Your task to perform on an android device: toggle sleep mode Image 0: 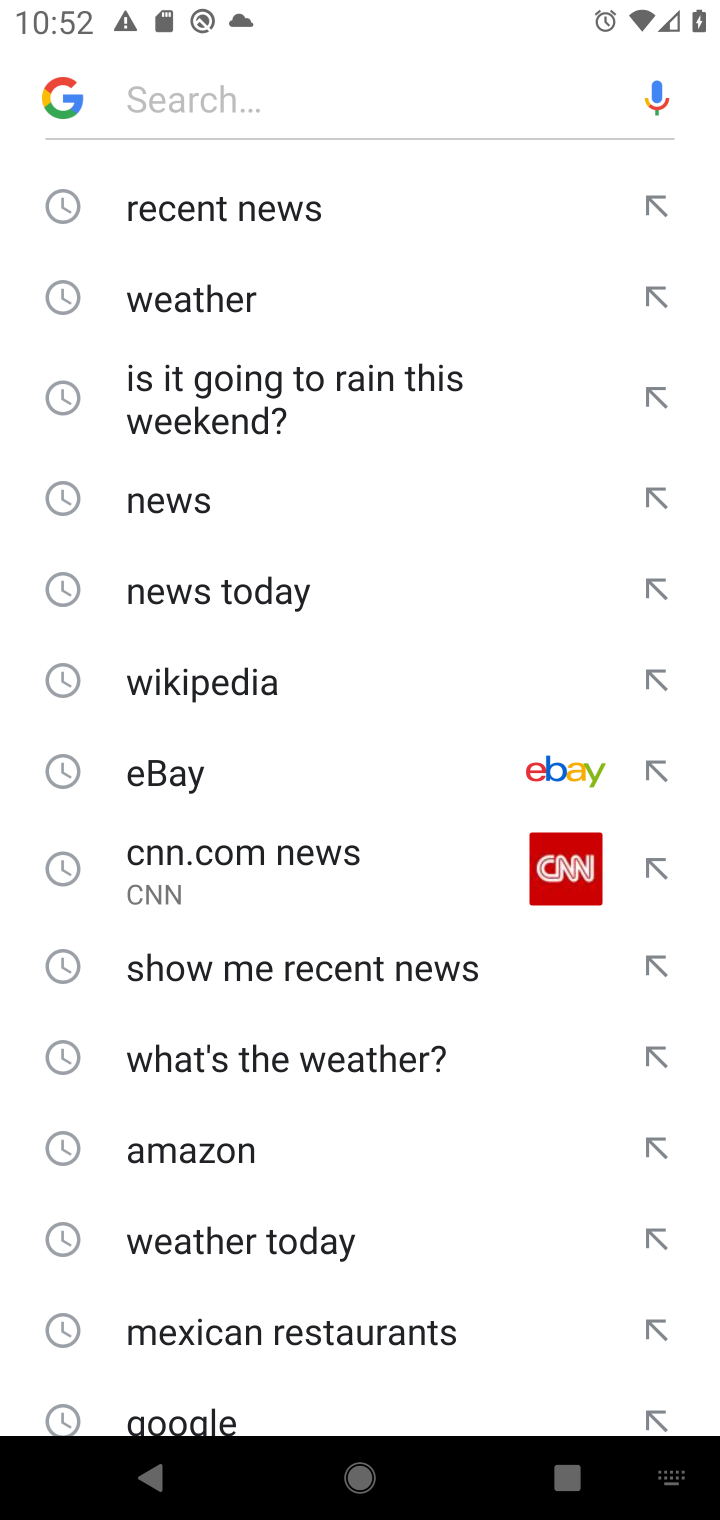
Step 0: press home button
Your task to perform on an android device: toggle sleep mode Image 1: 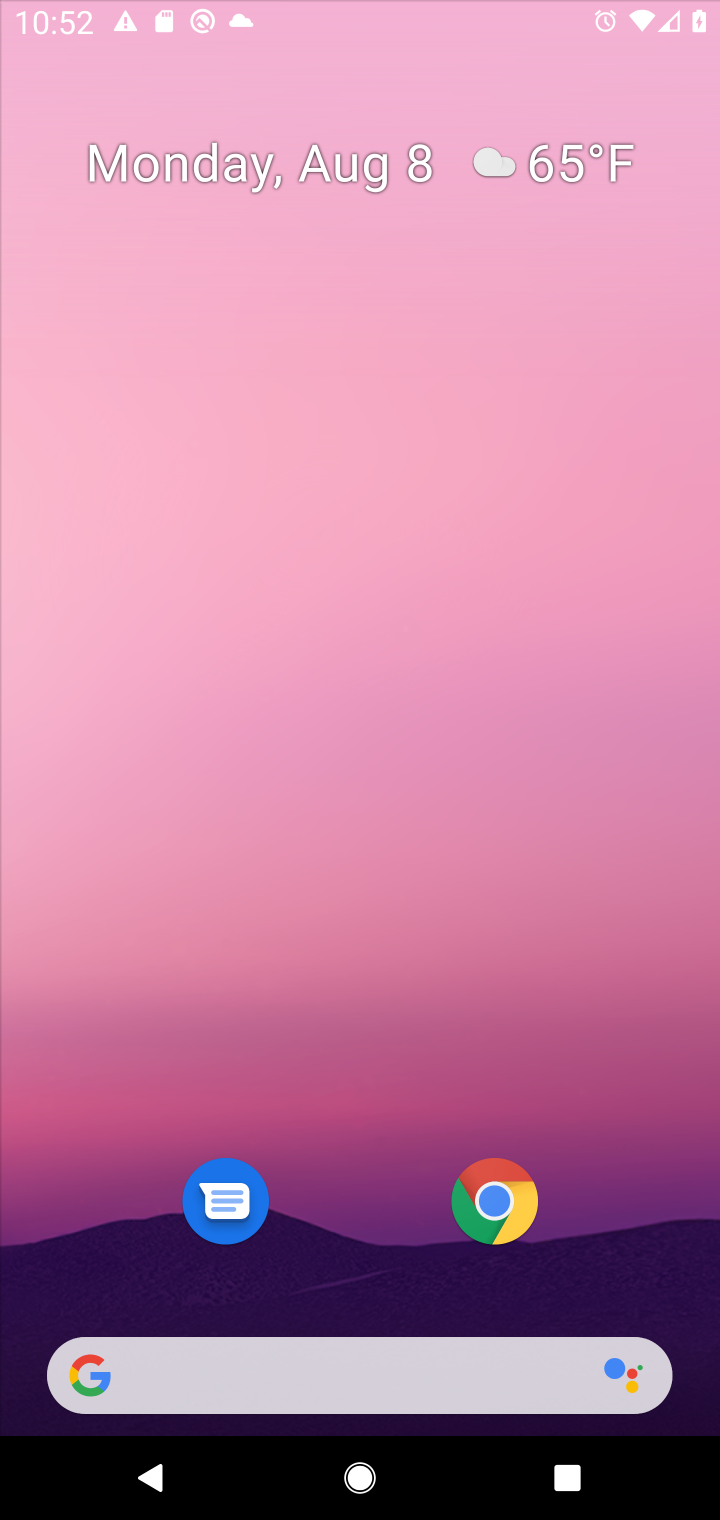
Step 1: click (707, 772)
Your task to perform on an android device: toggle sleep mode Image 2: 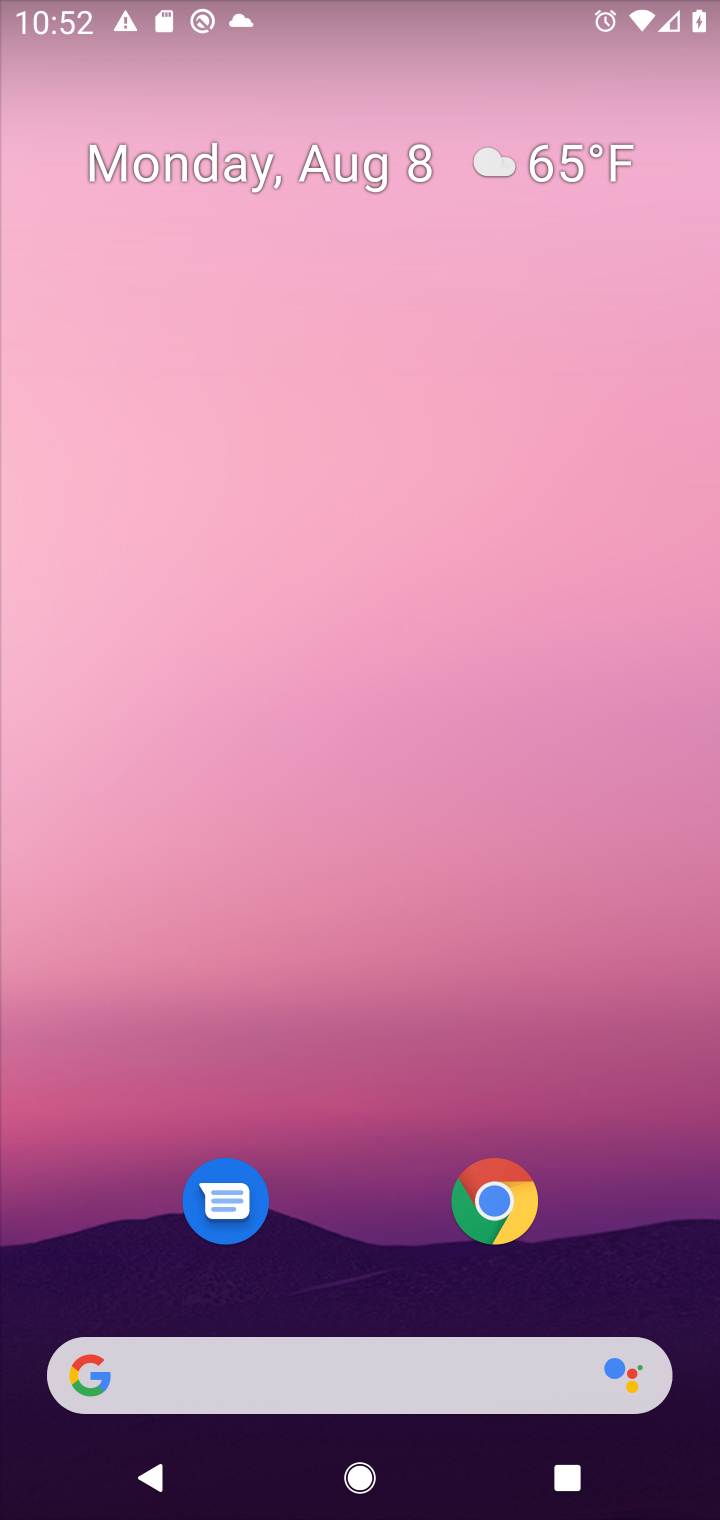
Step 2: drag from (374, 1260) to (456, 187)
Your task to perform on an android device: toggle sleep mode Image 3: 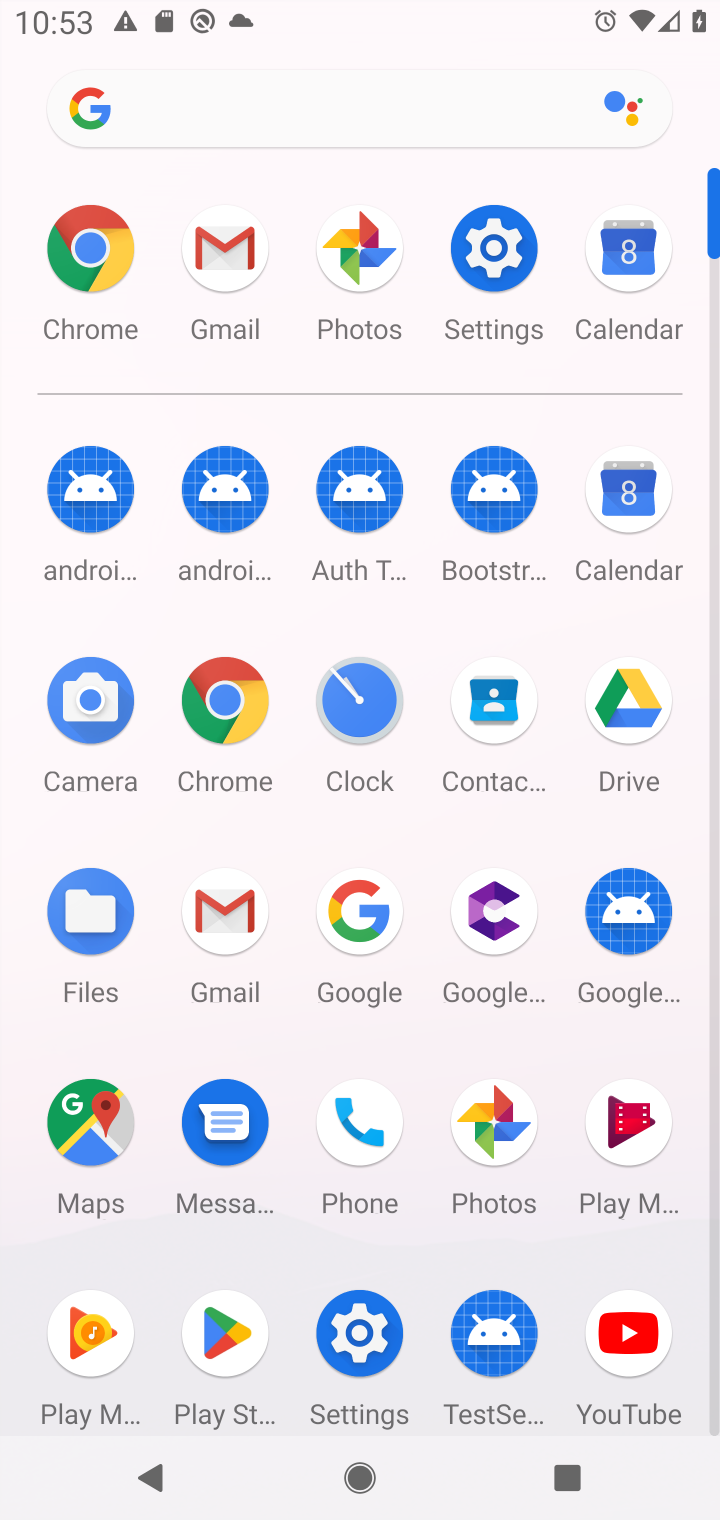
Step 3: click (495, 247)
Your task to perform on an android device: toggle sleep mode Image 4: 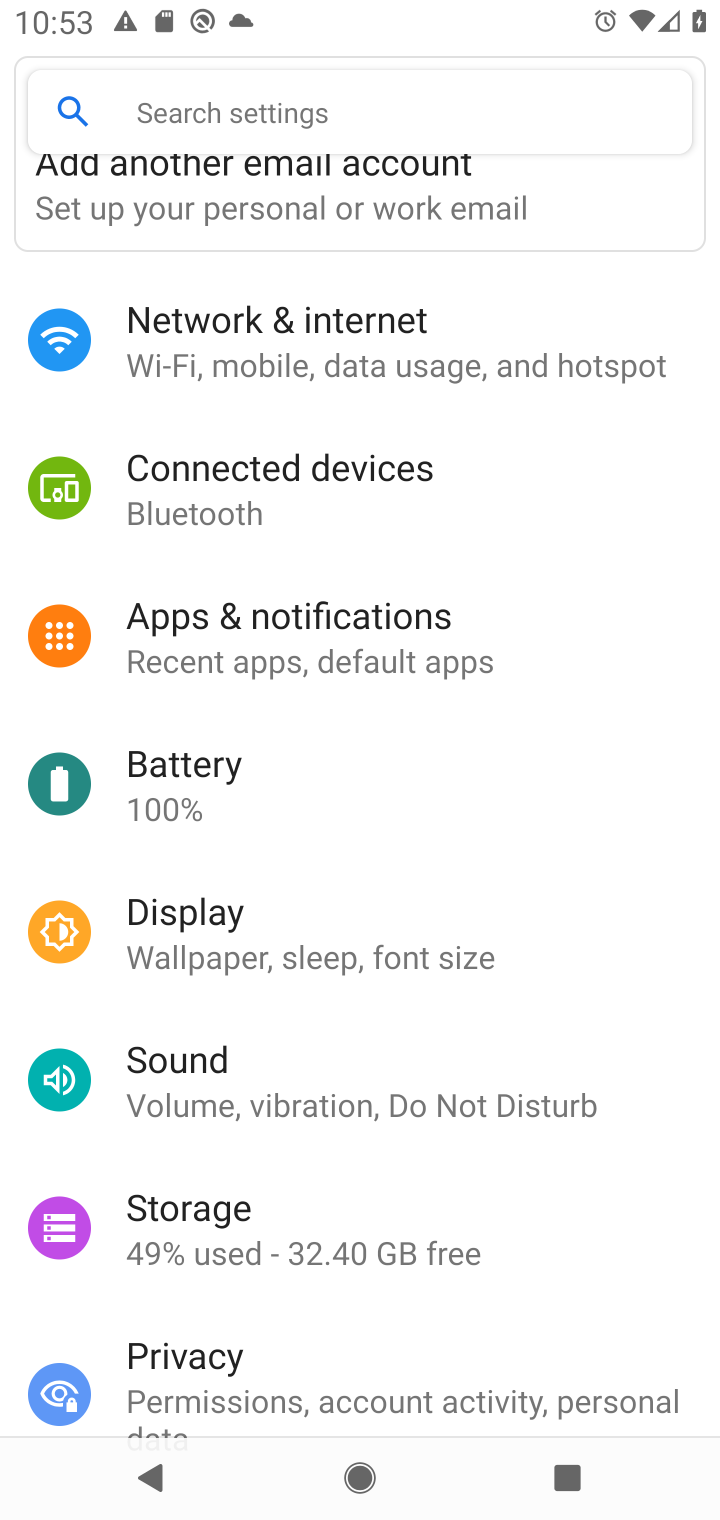
Step 4: drag from (577, 908) to (601, 586)
Your task to perform on an android device: toggle sleep mode Image 5: 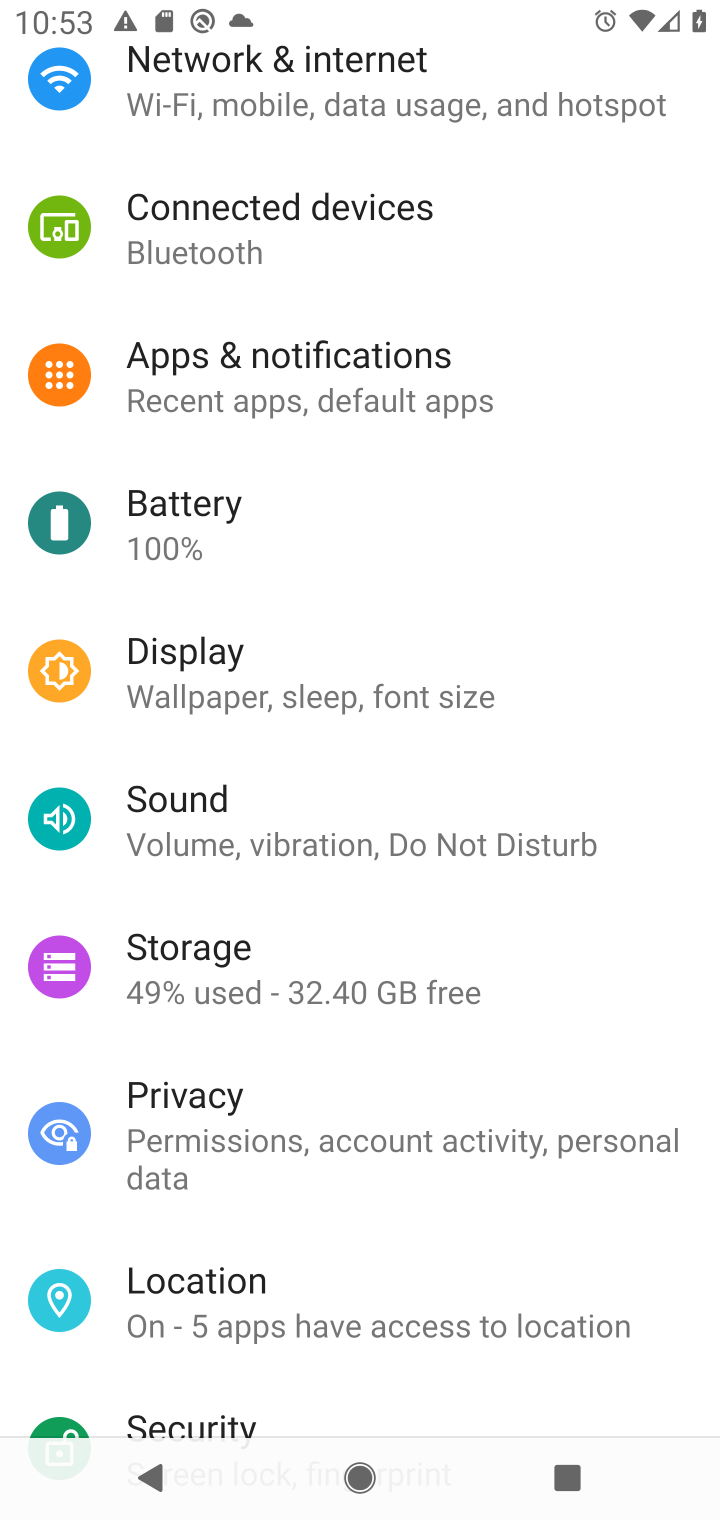
Step 5: drag from (626, 990) to (626, 462)
Your task to perform on an android device: toggle sleep mode Image 6: 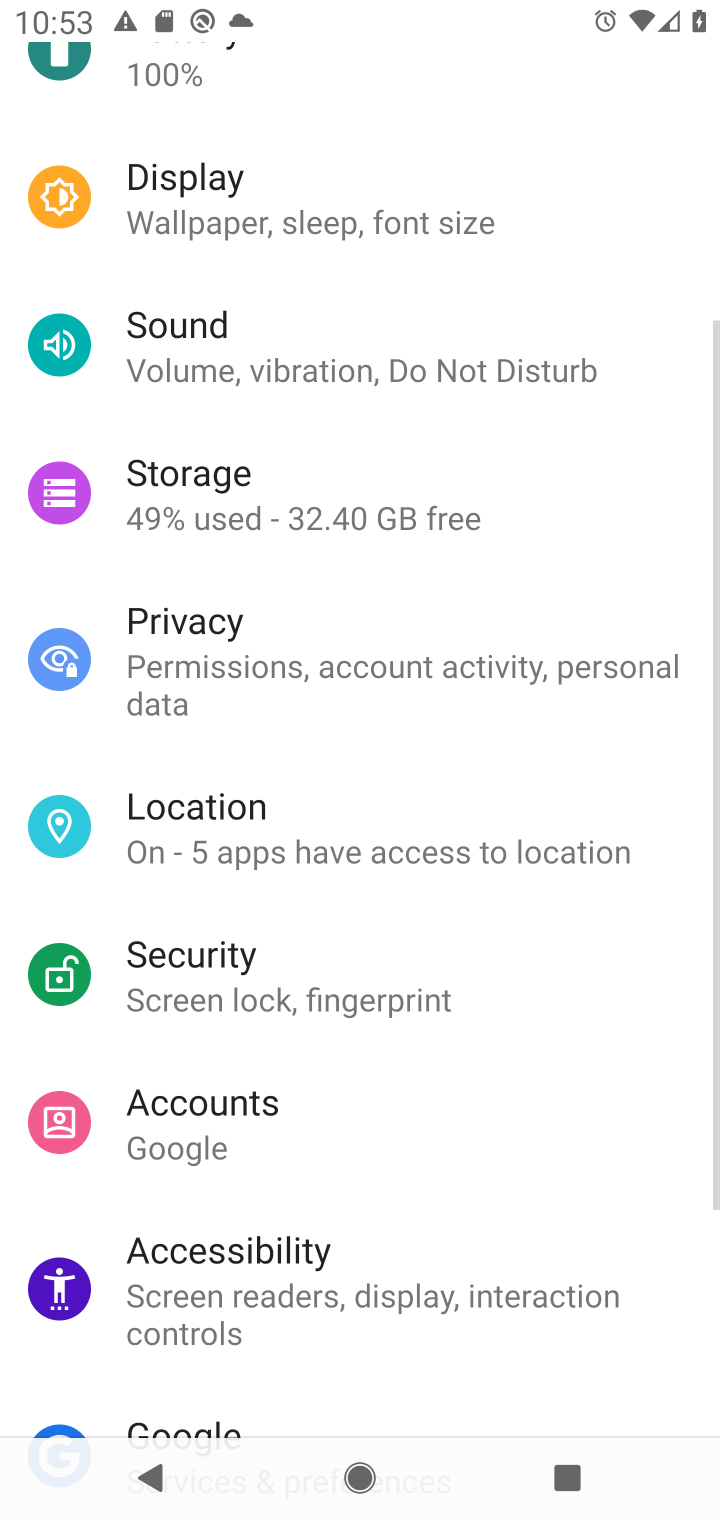
Step 6: drag from (625, 1031) to (620, 561)
Your task to perform on an android device: toggle sleep mode Image 7: 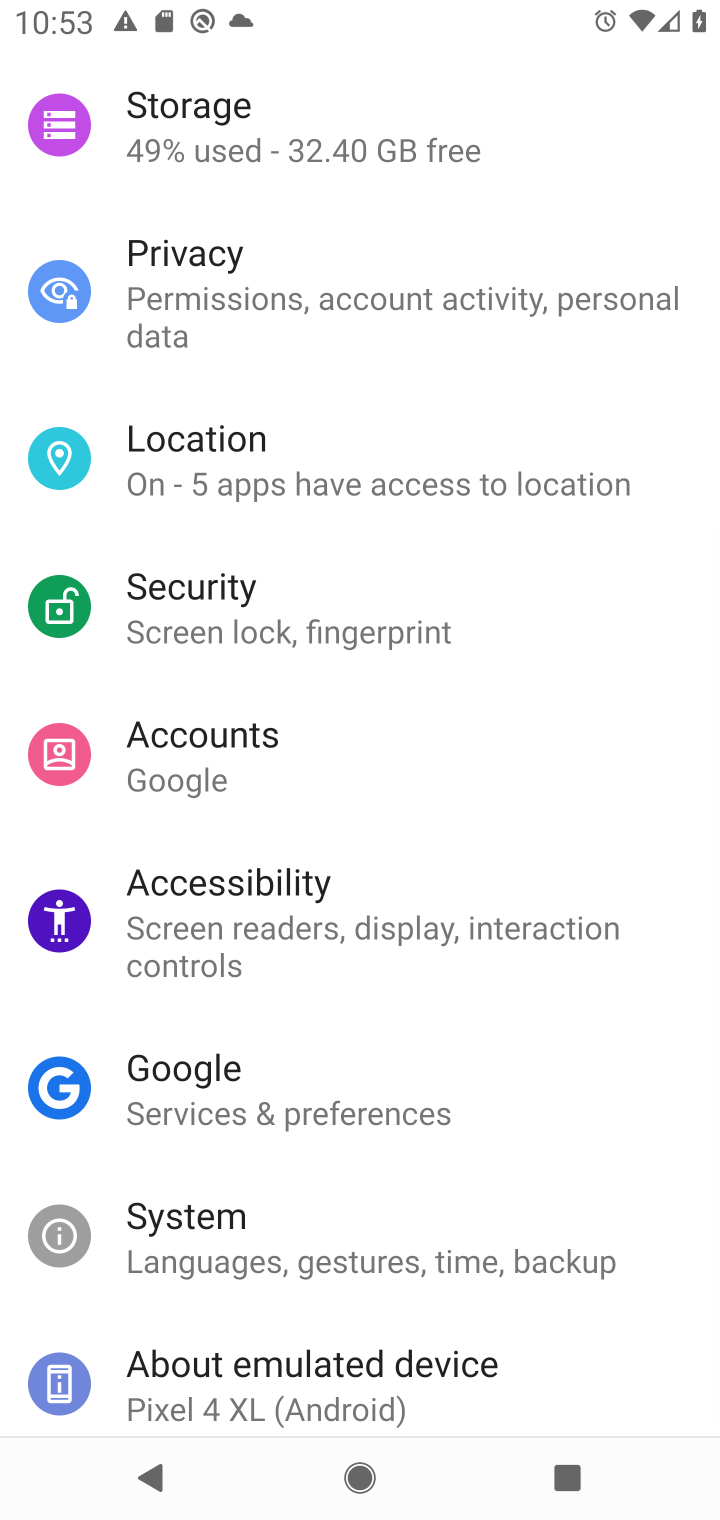
Step 7: drag from (578, 1073) to (615, 606)
Your task to perform on an android device: toggle sleep mode Image 8: 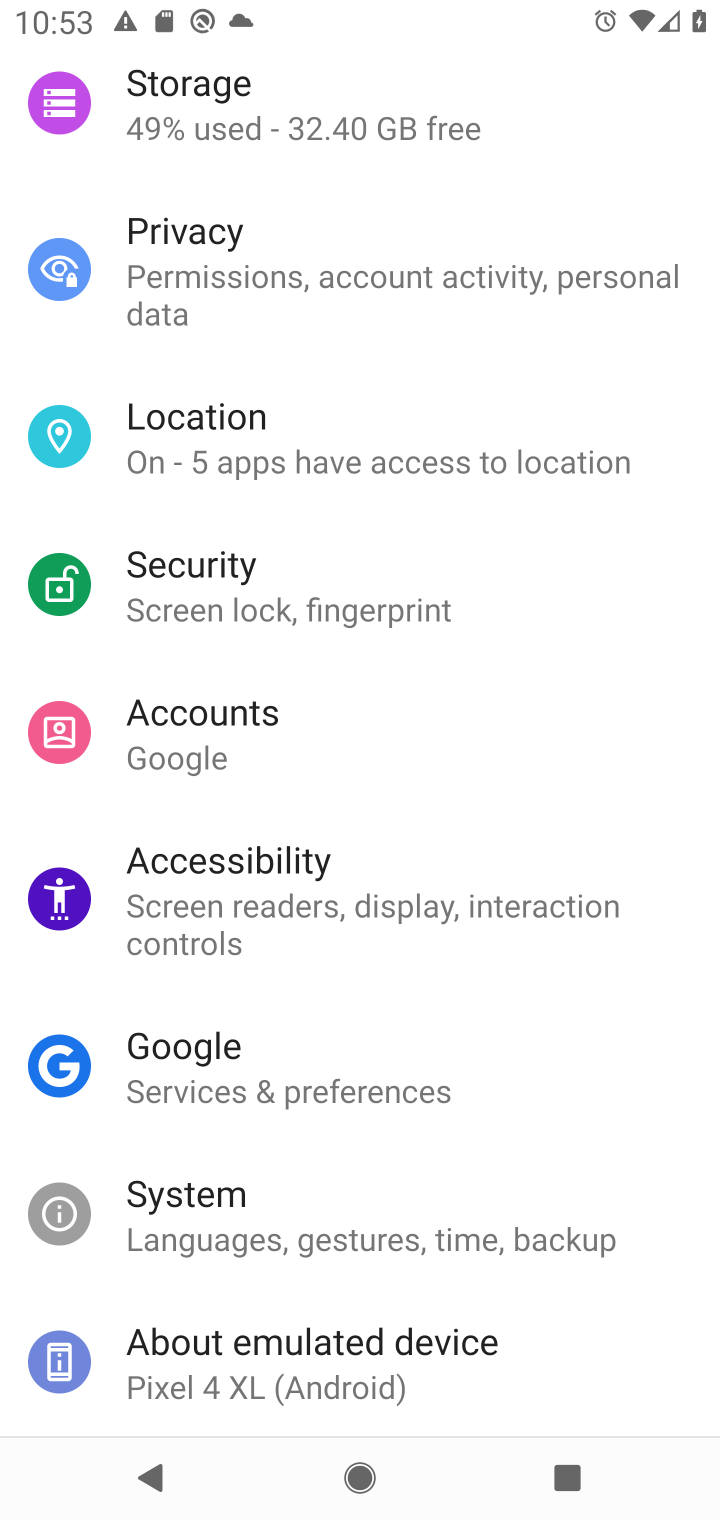
Step 8: drag from (637, 524) to (639, 791)
Your task to perform on an android device: toggle sleep mode Image 9: 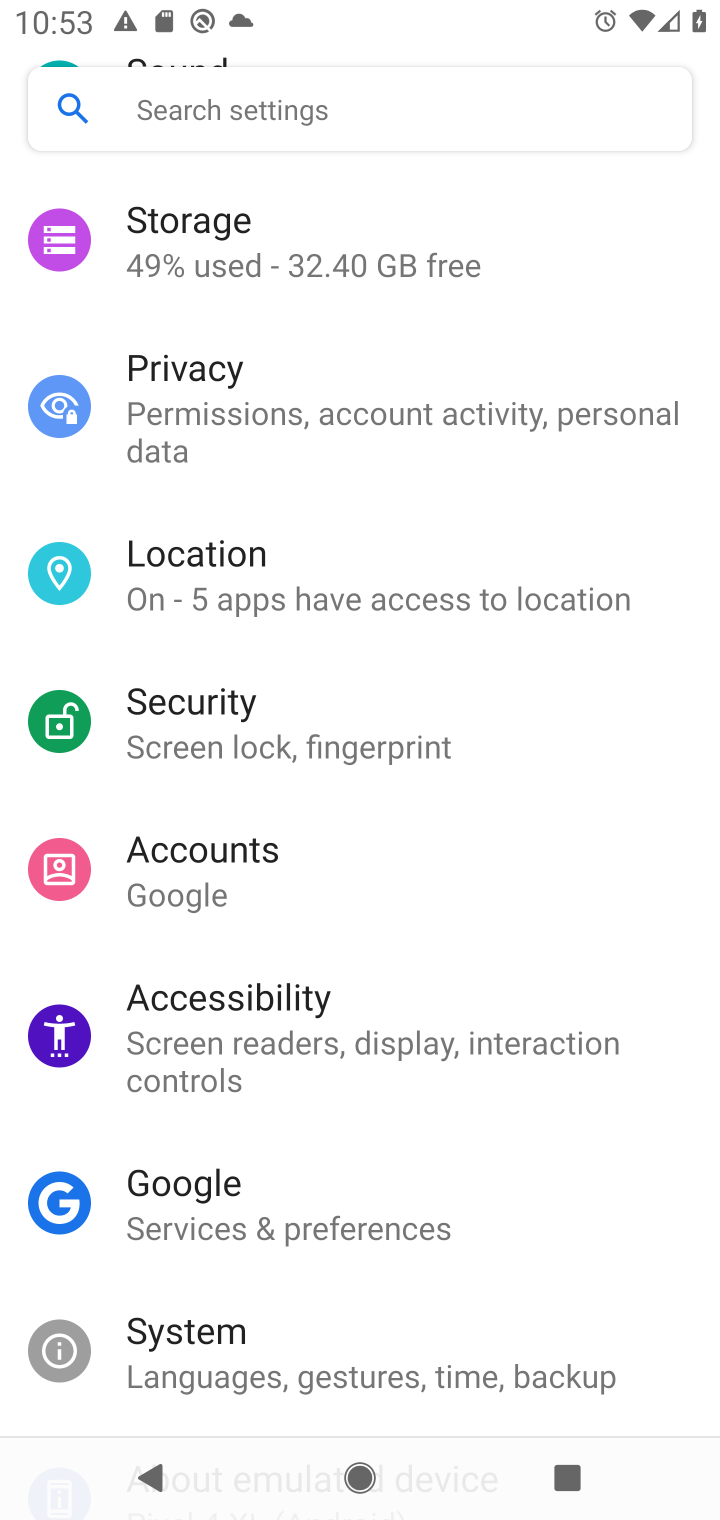
Step 9: drag from (628, 541) to (618, 793)
Your task to perform on an android device: toggle sleep mode Image 10: 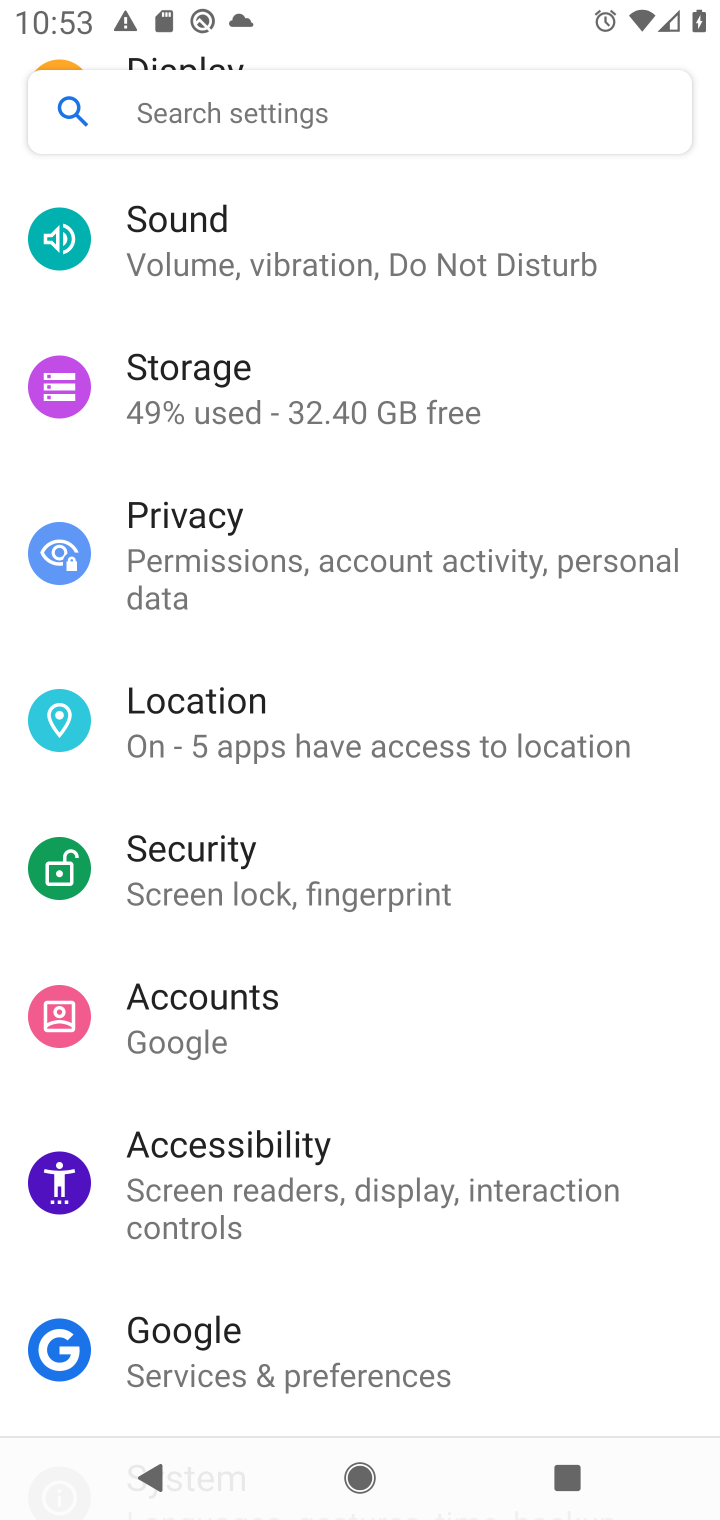
Step 10: drag from (600, 375) to (612, 740)
Your task to perform on an android device: toggle sleep mode Image 11: 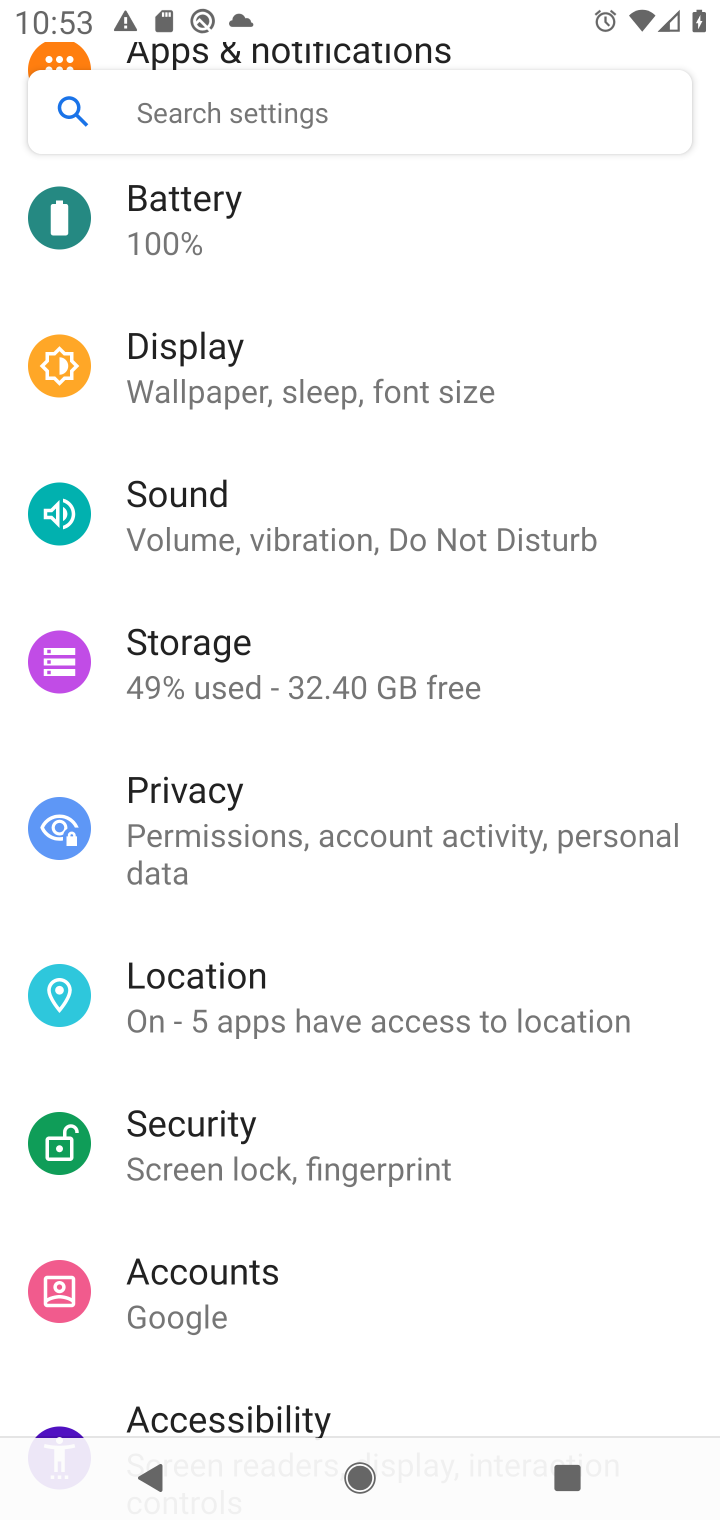
Step 11: drag from (636, 300) to (639, 654)
Your task to perform on an android device: toggle sleep mode Image 12: 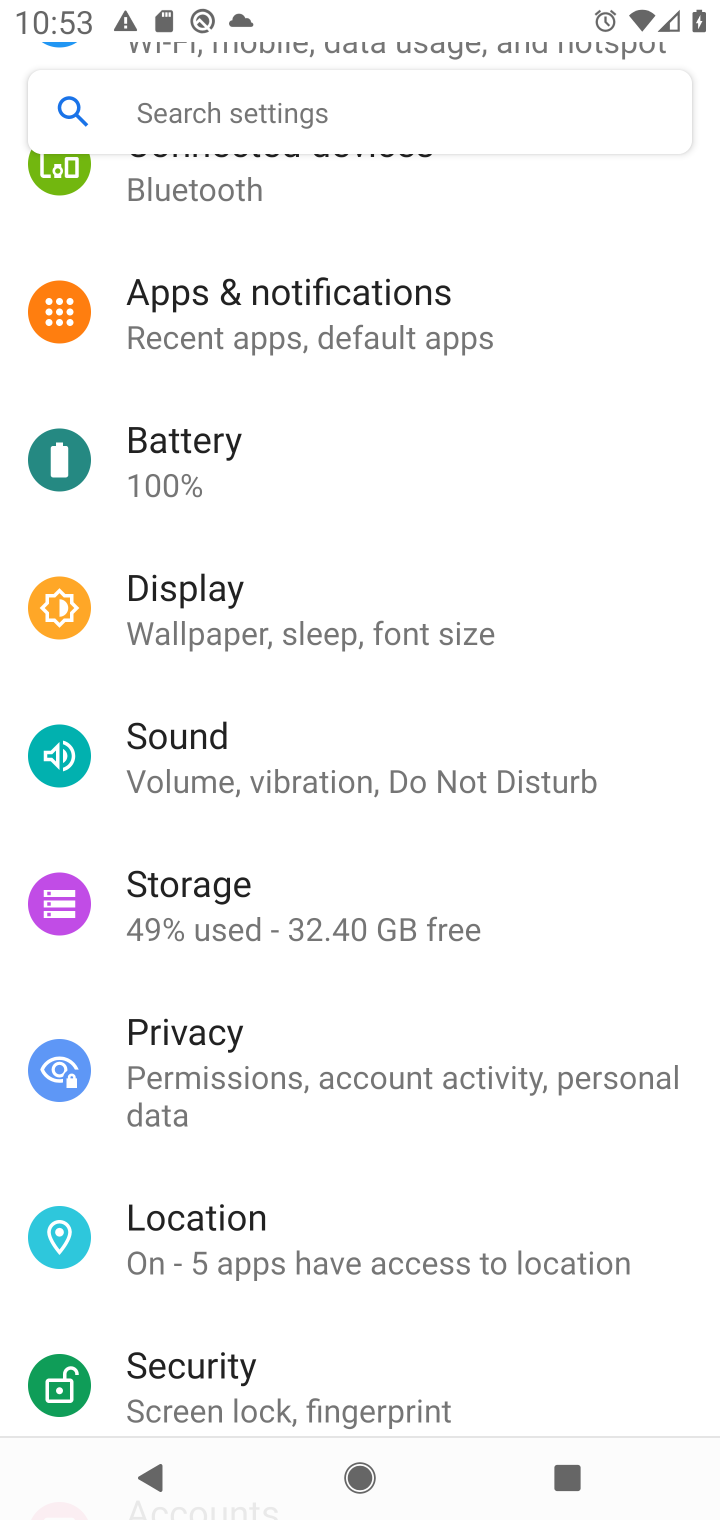
Step 12: click (415, 621)
Your task to perform on an android device: toggle sleep mode Image 13: 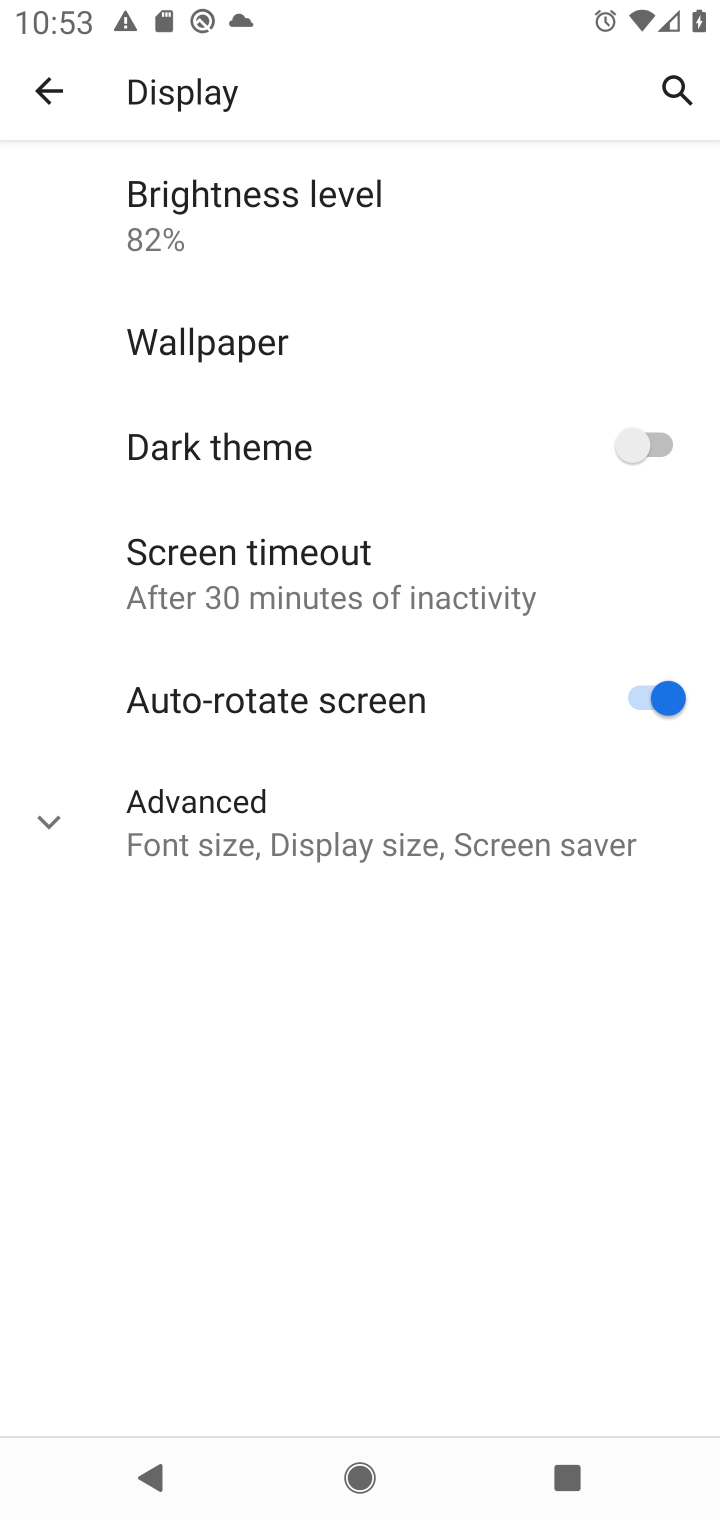
Step 13: click (411, 819)
Your task to perform on an android device: toggle sleep mode Image 14: 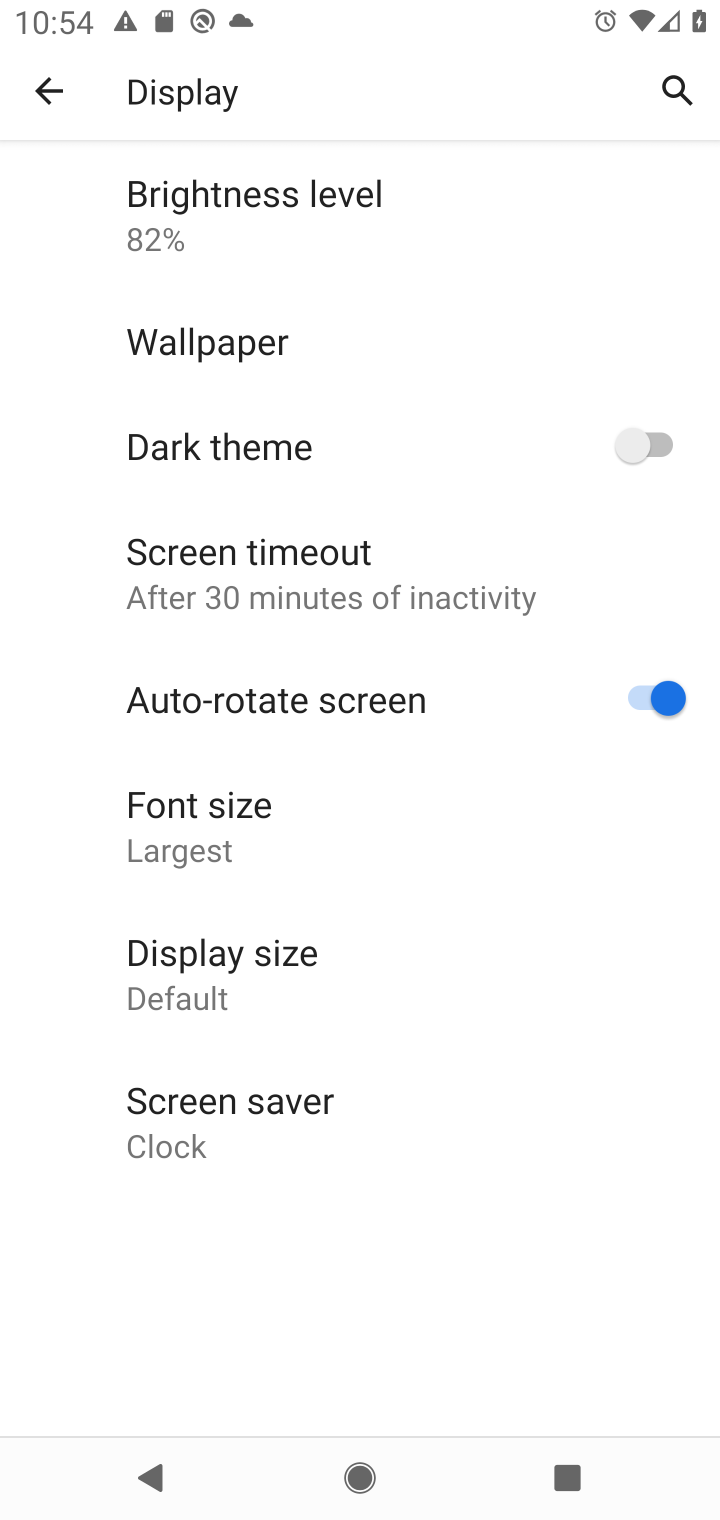
Step 14: task complete